Your task to perform on an android device: install app "Reddit" Image 0: 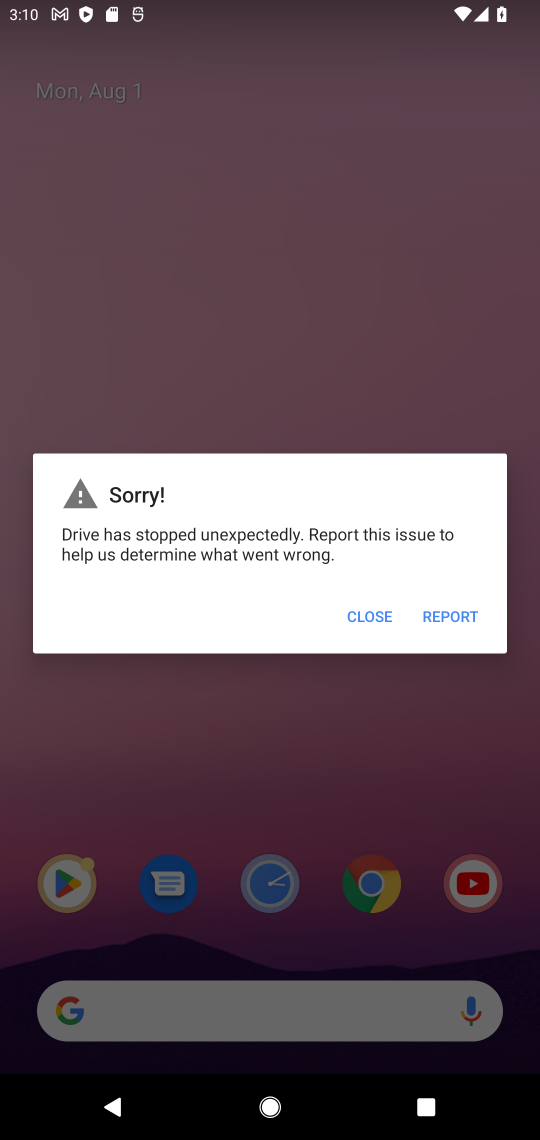
Step 0: press home button
Your task to perform on an android device: install app "Reddit" Image 1: 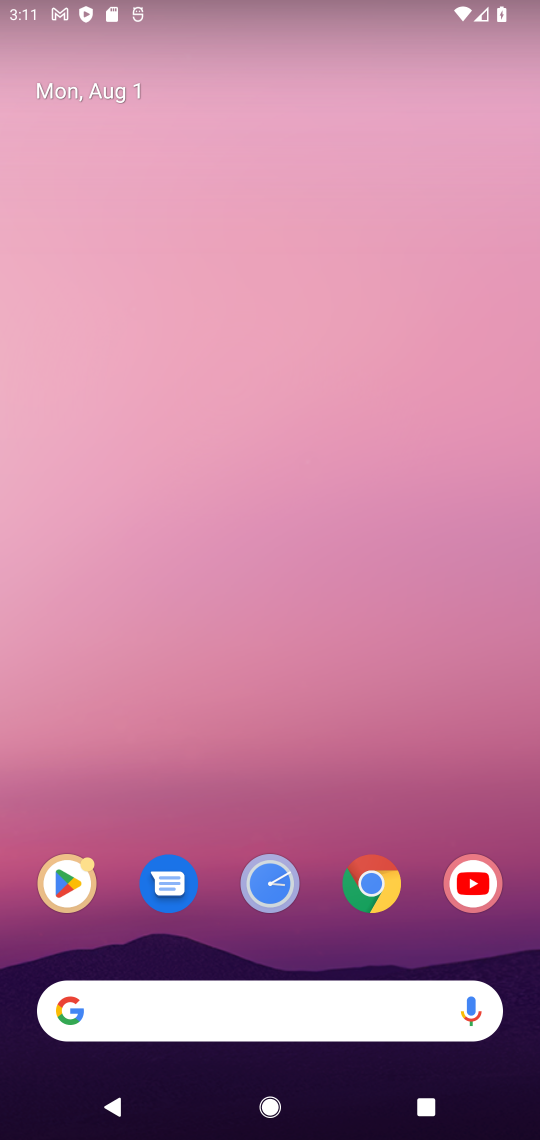
Step 1: drag from (320, 1000) to (344, 284)
Your task to perform on an android device: install app "Reddit" Image 2: 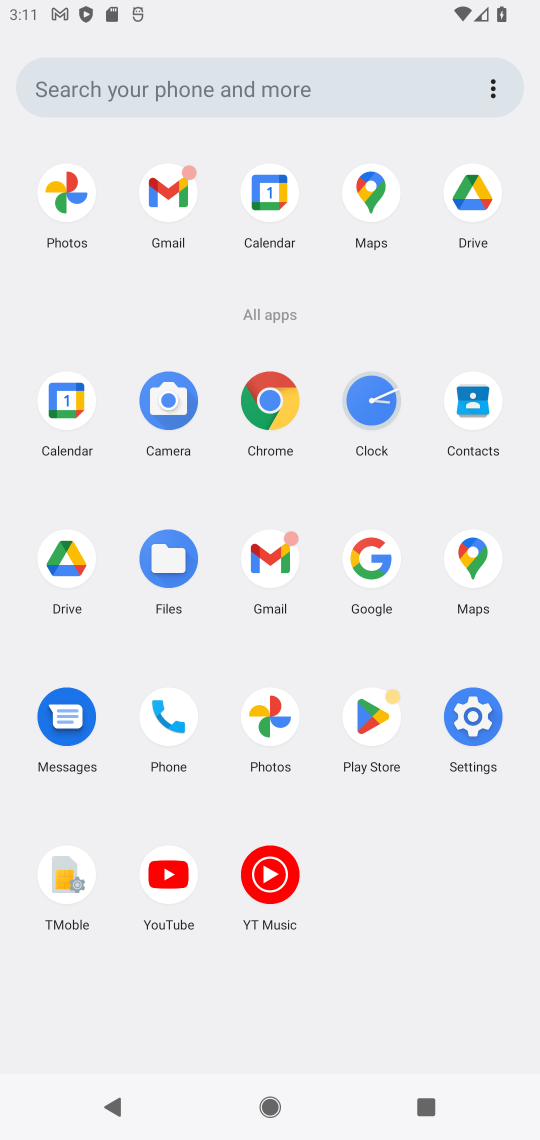
Step 2: click (383, 705)
Your task to perform on an android device: install app "Reddit" Image 3: 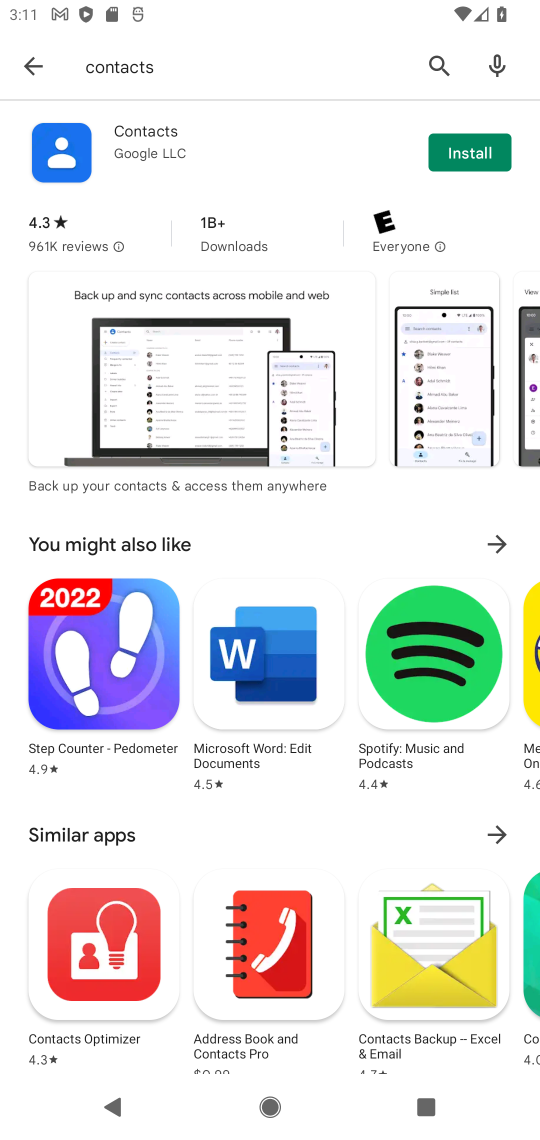
Step 3: click (452, 58)
Your task to perform on an android device: install app "Reddit" Image 4: 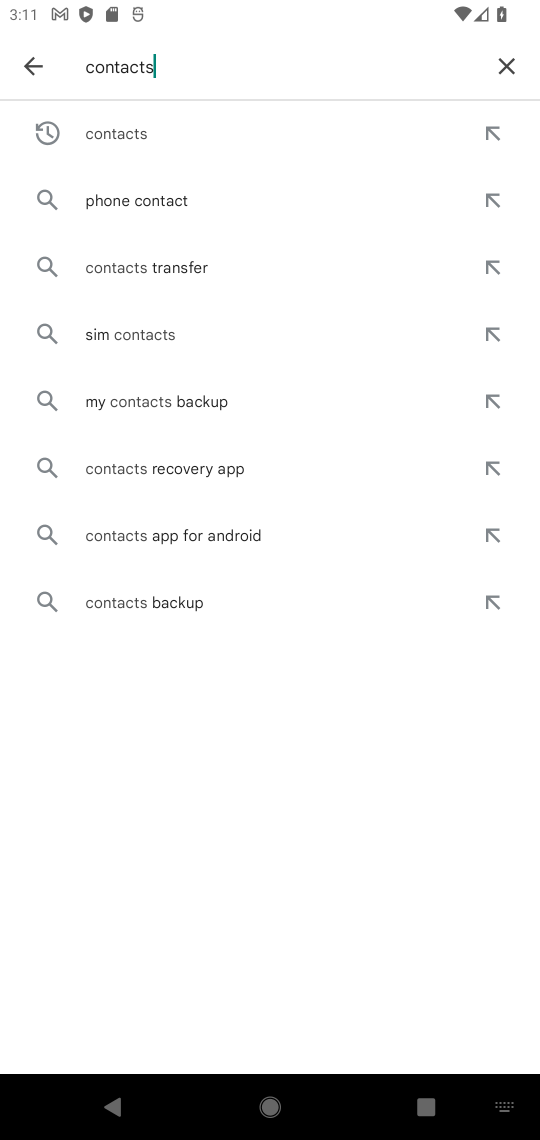
Step 4: click (510, 61)
Your task to perform on an android device: install app "Reddit" Image 5: 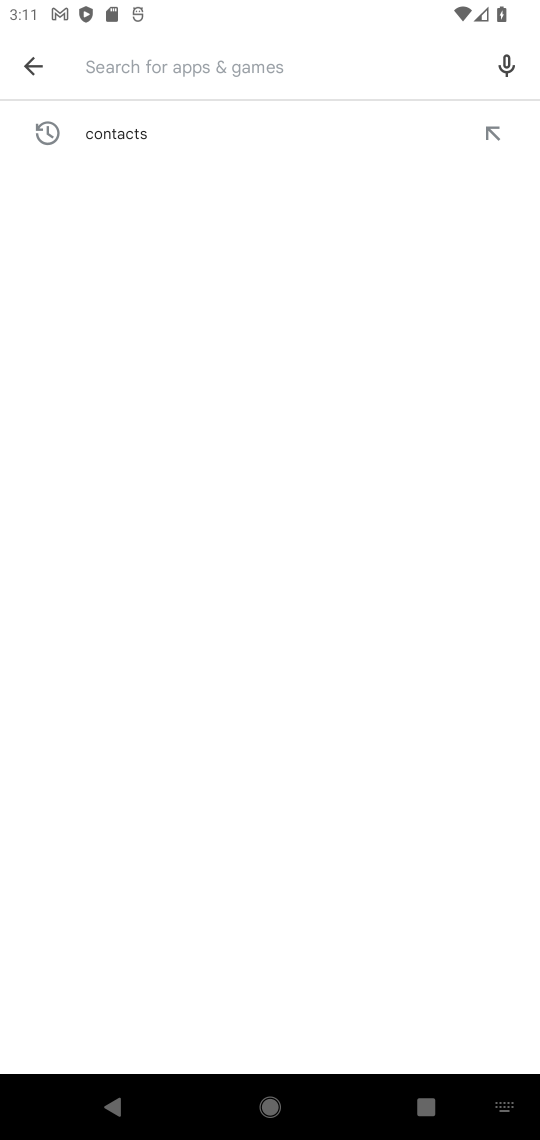
Step 5: type "reddit"
Your task to perform on an android device: install app "Reddit" Image 6: 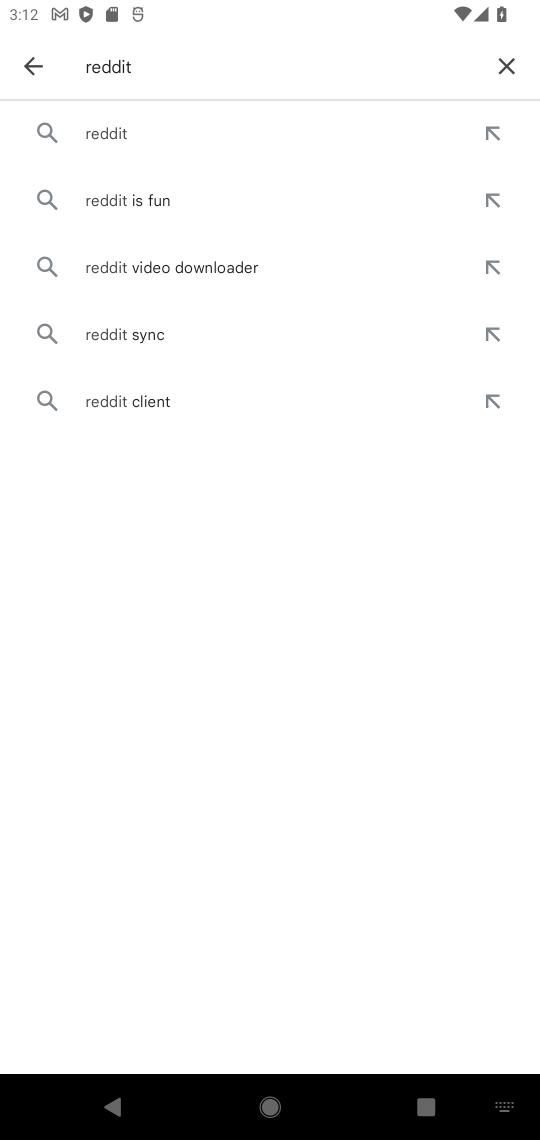
Step 6: click (181, 130)
Your task to perform on an android device: install app "Reddit" Image 7: 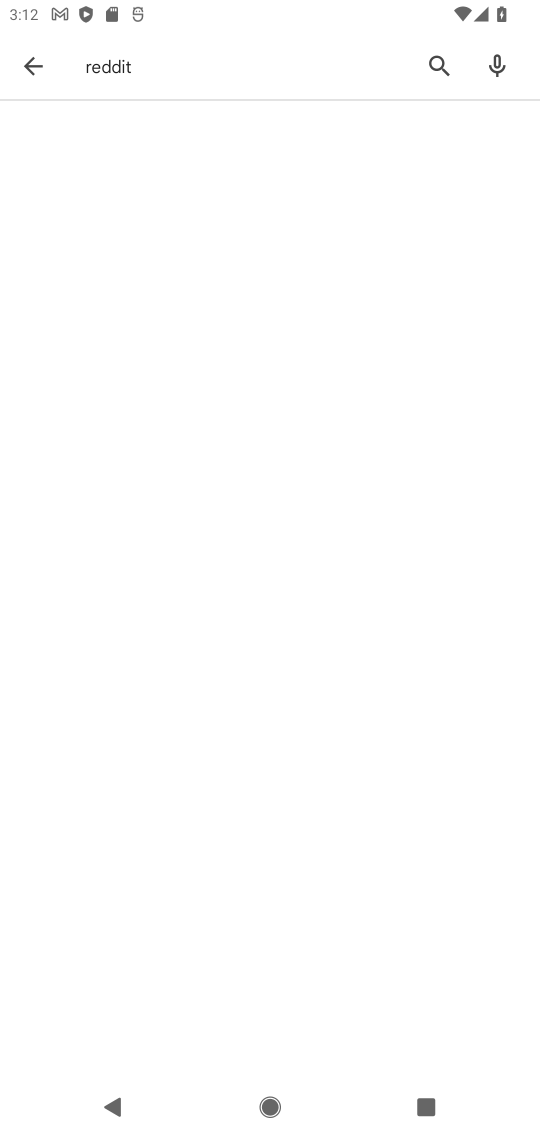
Step 7: click (181, 130)
Your task to perform on an android device: install app "Reddit" Image 8: 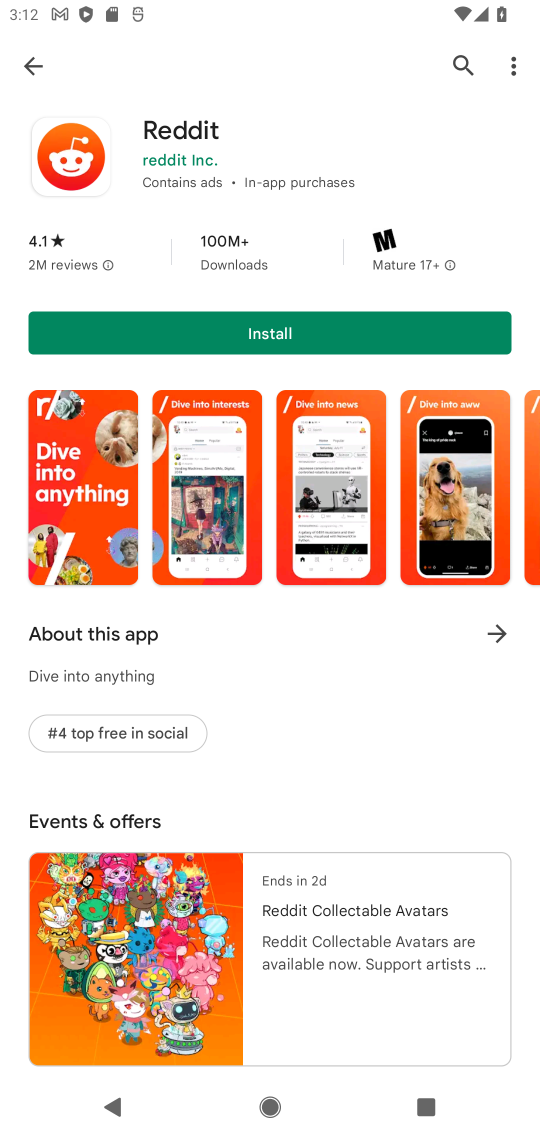
Step 8: click (245, 339)
Your task to perform on an android device: install app "Reddit" Image 9: 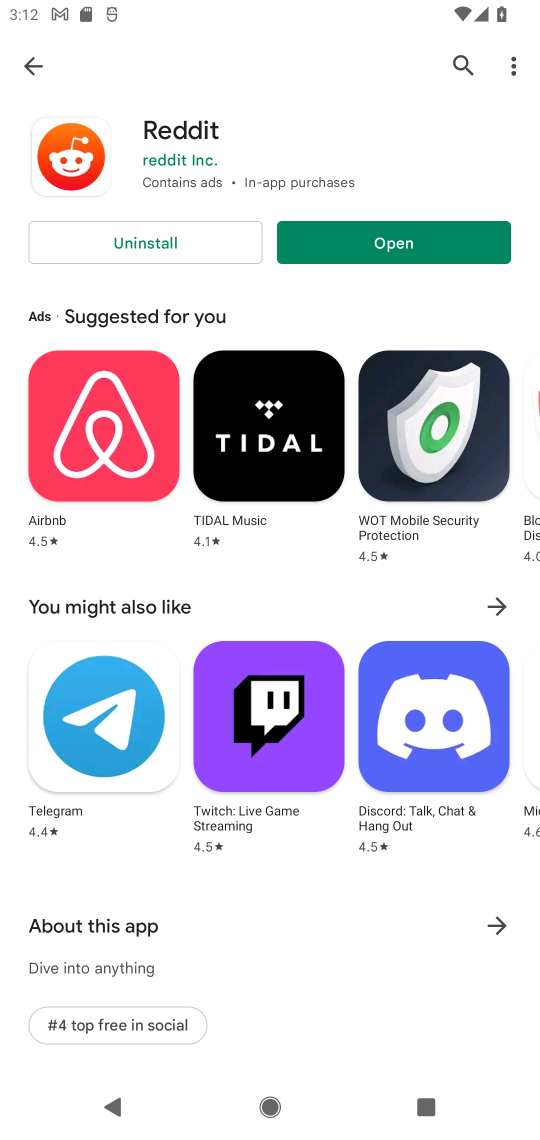
Step 9: task complete